Your task to perform on an android device: Go to notification settings Image 0: 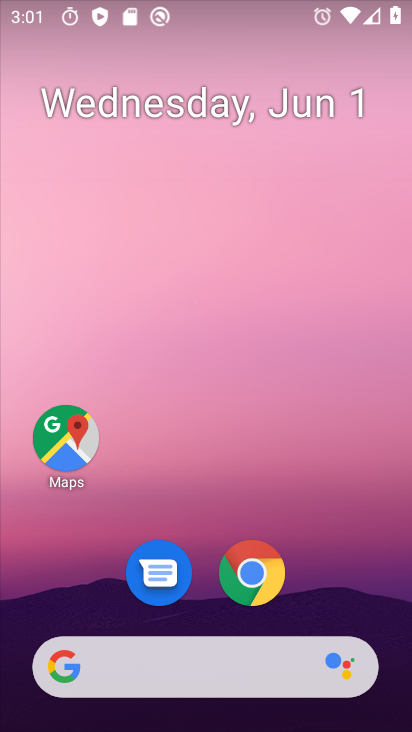
Step 0: drag from (203, 620) to (204, 313)
Your task to perform on an android device: Go to notification settings Image 1: 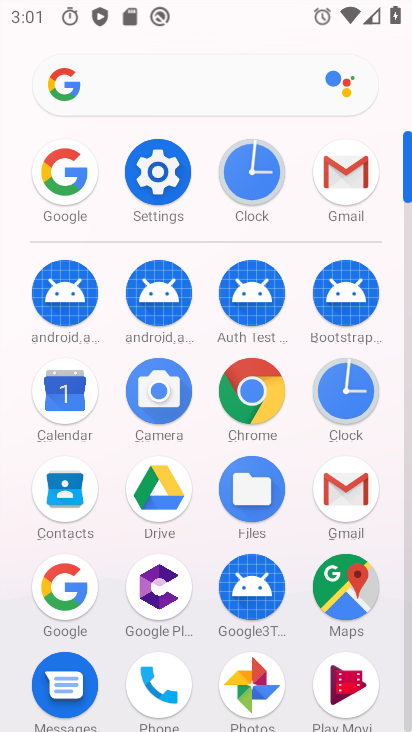
Step 1: click (152, 193)
Your task to perform on an android device: Go to notification settings Image 2: 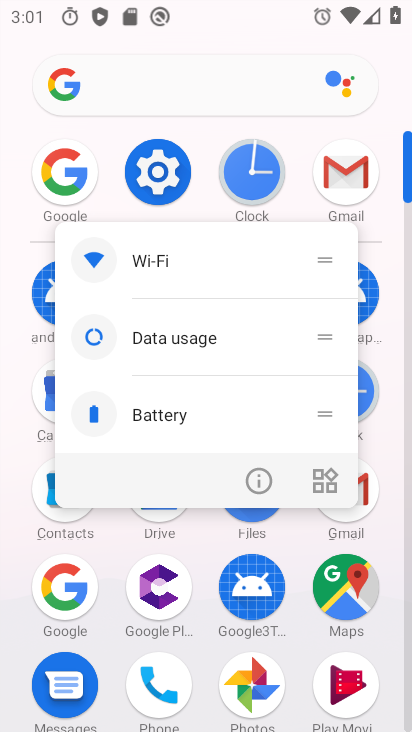
Step 2: click (152, 193)
Your task to perform on an android device: Go to notification settings Image 3: 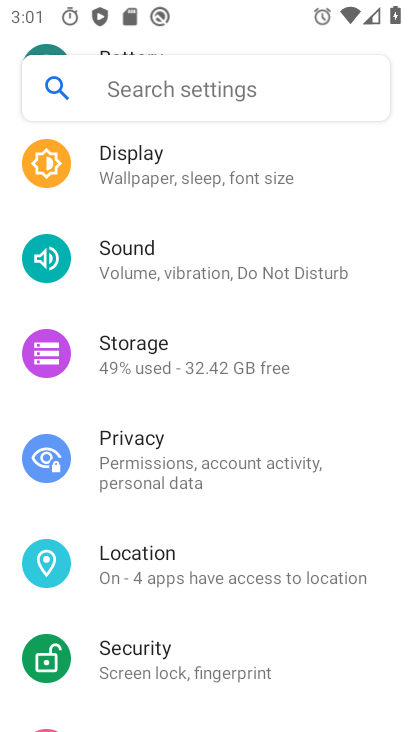
Step 3: drag from (214, 246) to (251, 598)
Your task to perform on an android device: Go to notification settings Image 4: 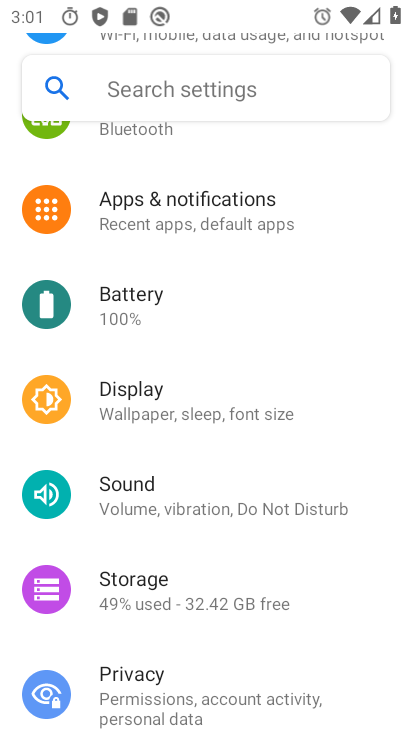
Step 4: click (203, 216)
Your task to perform on an android device: Go to notification settings Image 5: 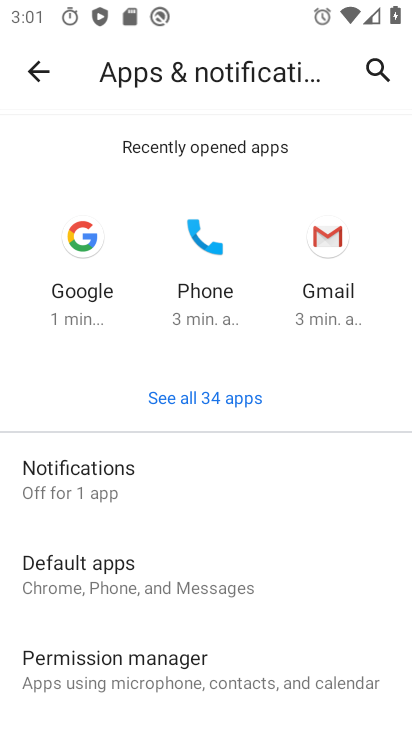
Step 5: drag from (232, 649) to (237, 493)
Your task to perform on an android device: Go to notification settings Image 6: 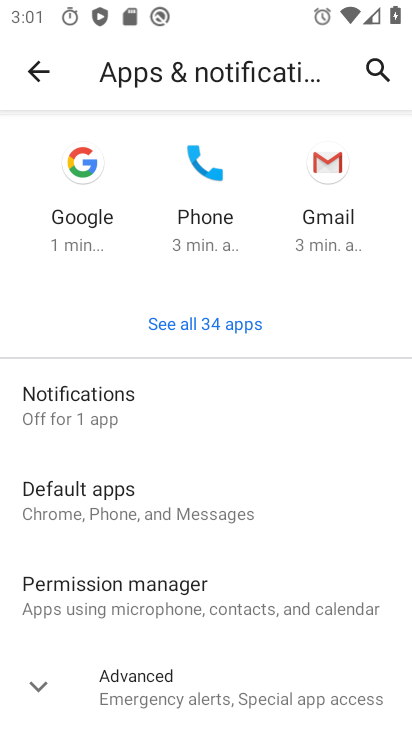
Step 6: click (141, 398)
Your task to perform on an android device: Go to notification settings Image 7: 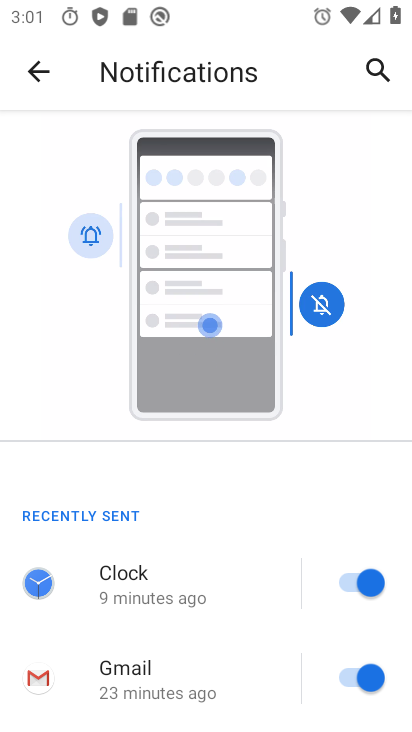
Step 7: task complete